Your task to perform on an android device: Go to Reddit.com Image 0: 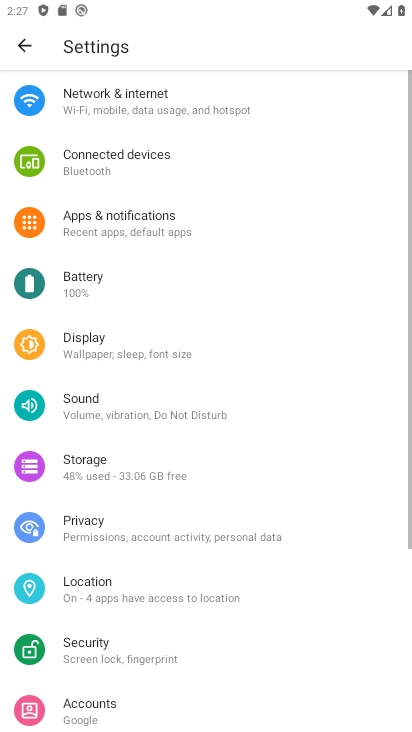
Step 0: press home button
Your task to perform on an android device: Go to Reddit.com Image 1: 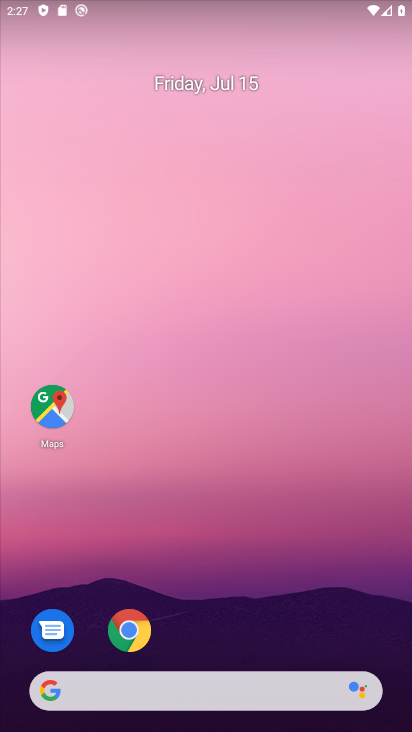
Step 1: click (130, 634)
Your task to perform on an android device: Go to Reddit.com Image 2: 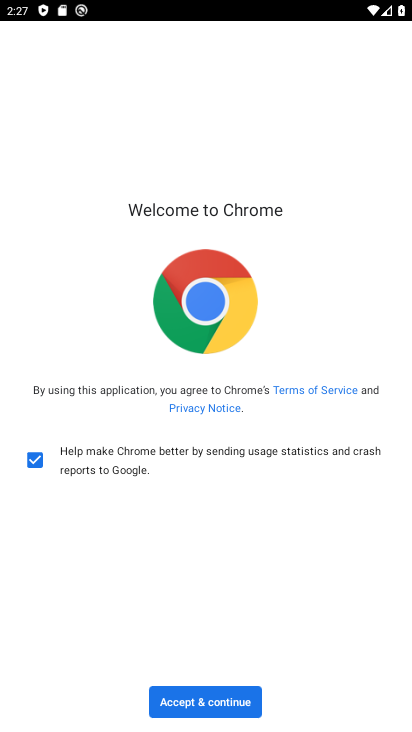
Step 2: click (190, 696)
Your task to perform on an android device: Go to Reddit.com Image 3: 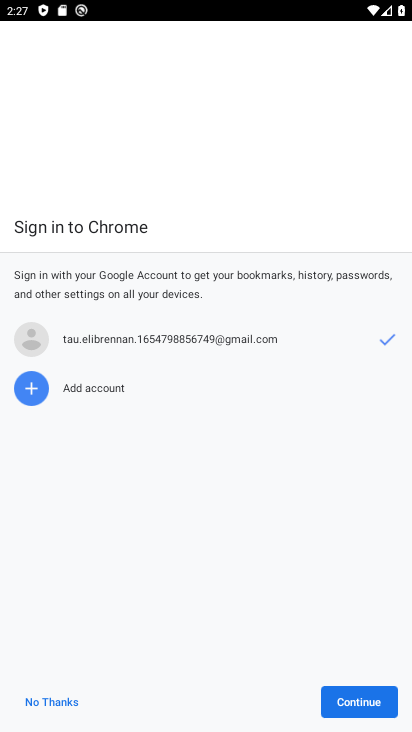
Step 3: click (381, 697)
Your task to perform on an android device: Go to Reddit.com Image 4: 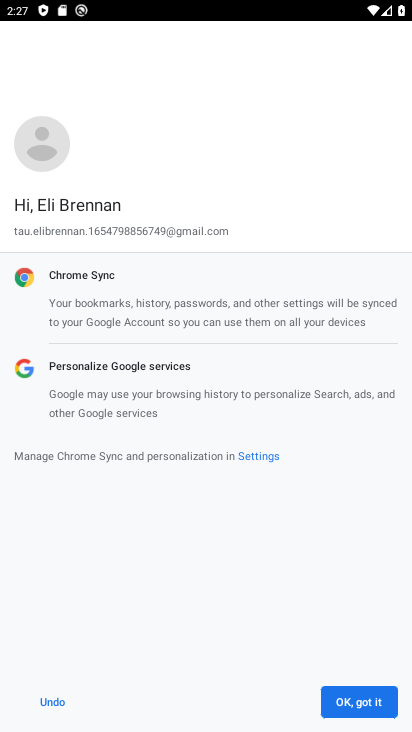
Step 4: click (357, 705)
Your task to perform on an android device: Go to Reddit.com Image 5: 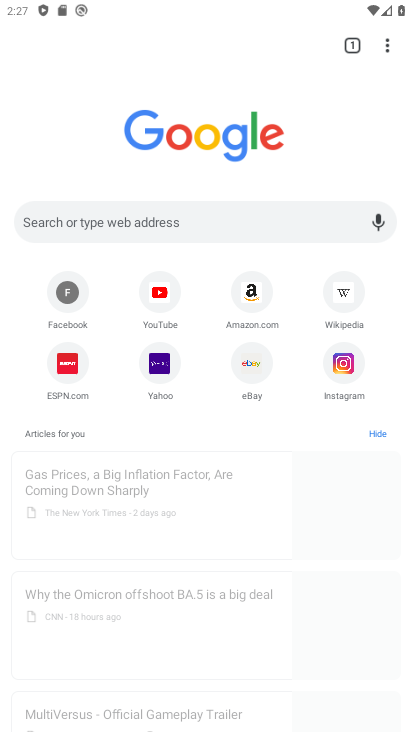
Step 5: click (114, 229)
Your task to perform on an android device: Go to Reddit.com Image 6: 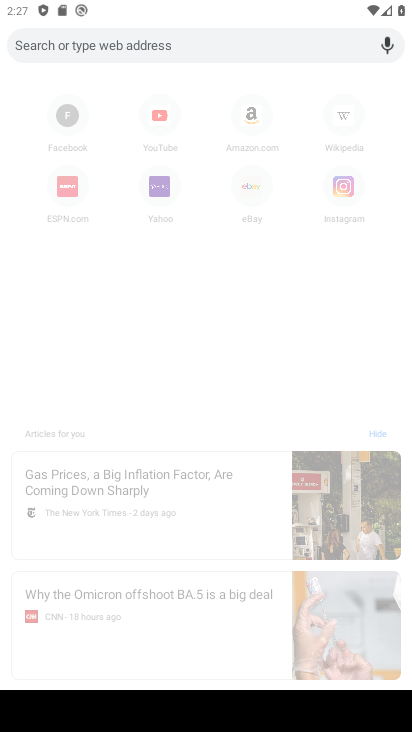
Step 6: type "Reddit.com"
Your task to perform on an android device: Go to Reddit.com Image 7: 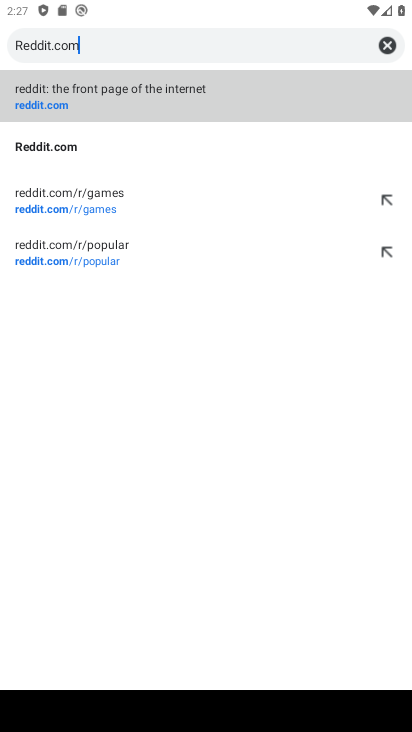
Step 7: click (180, 87)
Your task to perform on an android device: Go to Reddit.com Image 8: 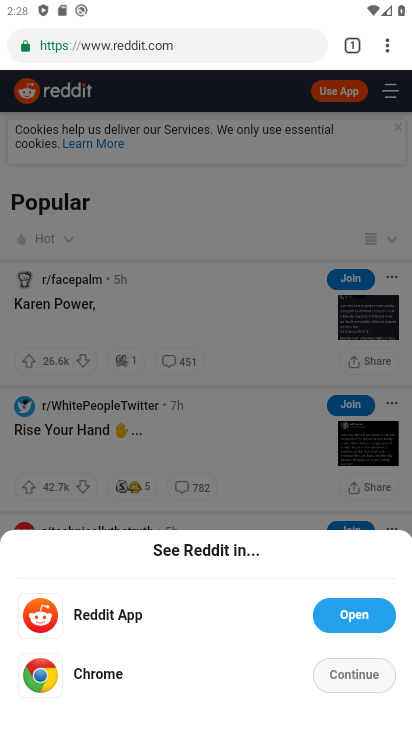
Step 8: task complete